Your task to perform on an android device: turn on the 24-hour format for clock Image 0: 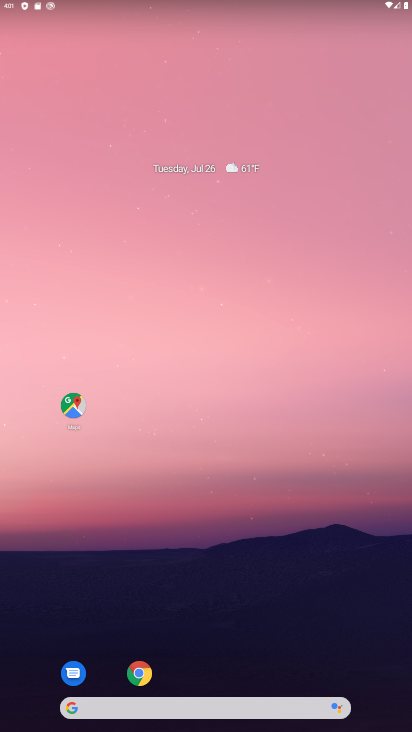
Step 0: drag from (207, 678) to (220, 32)
Your task to perform on an android device: turn on the 24-hour format for clock Image 1: 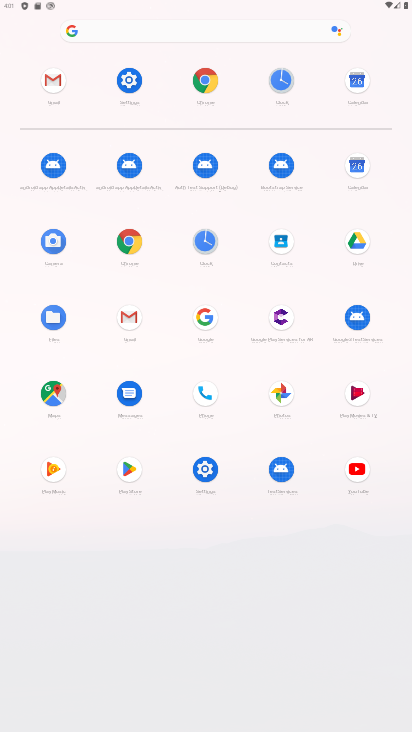
Step 1: click (277, 70)
Your task to perform on an android device: turn on the 24-hour format for clock Image 2: 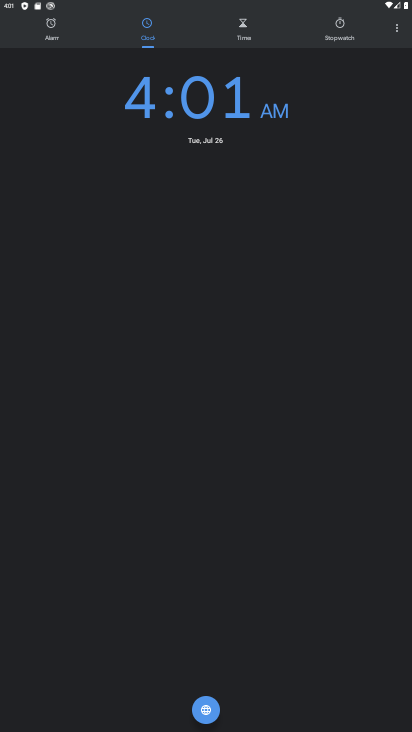
Step 2: click (398, 30)
Your task to perform on an android device: turn on the 24-hour format for clock Image 3: 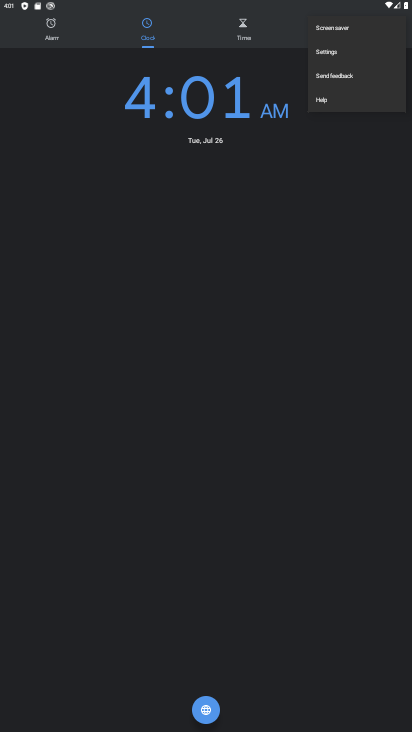
Step 3: click (344, 51)
Your task to perform on an android device: turn on the 24-hour format for clock Image 4: 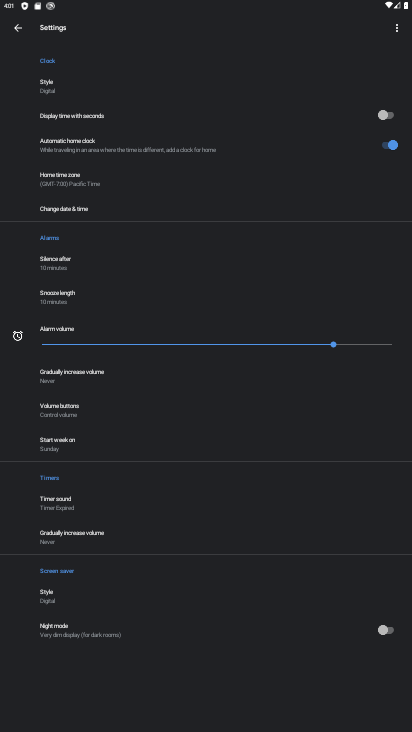
Step 4: click (92, 213)
Your task to perform on an android device: turn on the 24-hour format for clock Image 5: 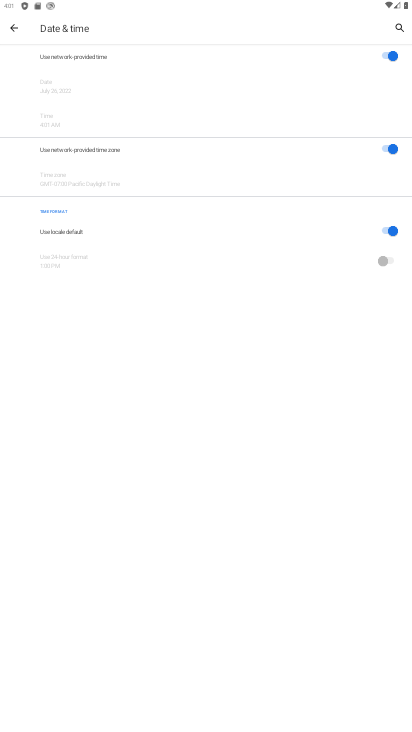
Step 5: click (392, 225)
Your task to perform on an android device: turn on the 24-hour format for clock Image 6: 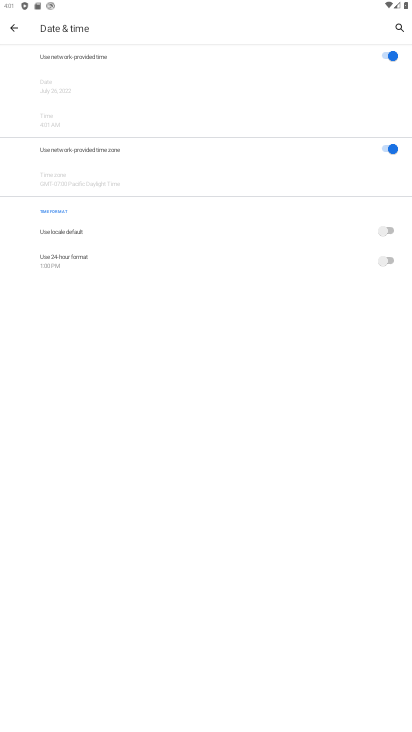
Step 6: click (393, 255)
Your task to perform on an android device: turn on the 24-hour format for clock Image 7: 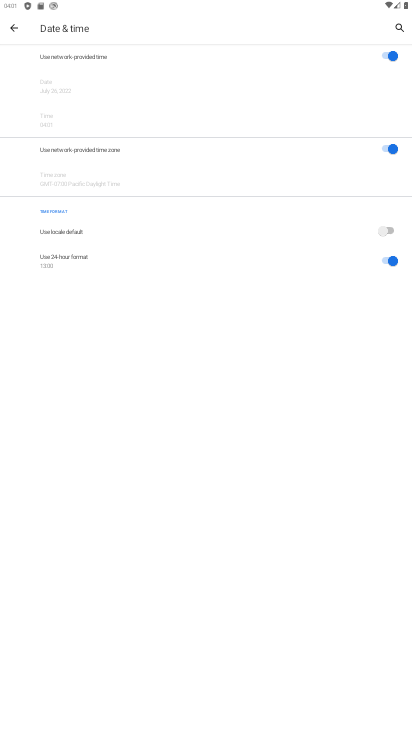
Step 7: task complete